Your task to perform on an android device: Open calendar and show me the fourth week of next month Image 0: 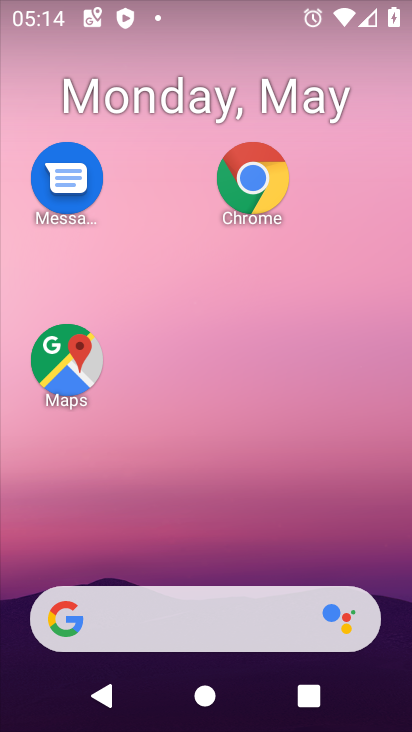
Step 0: drag from (229, 561) to (152, 0)
Your task to perform on an android device: Open calendar and show me the fourth week of next month Image 1: 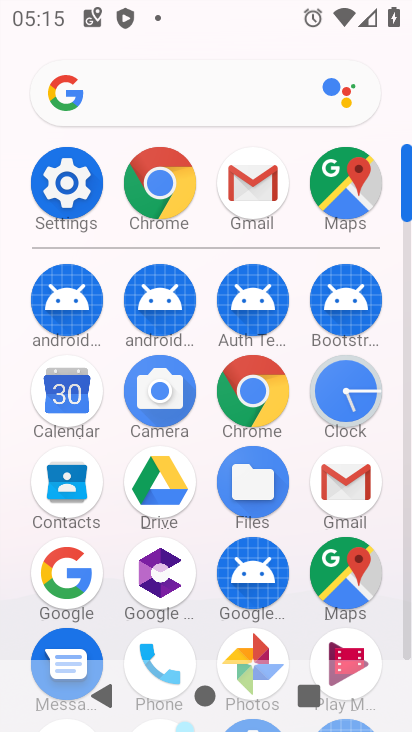
Step 1: click (75, 395)
Your task to perform on an android device: Open calendar and show me the fourth week of next month Image 2: 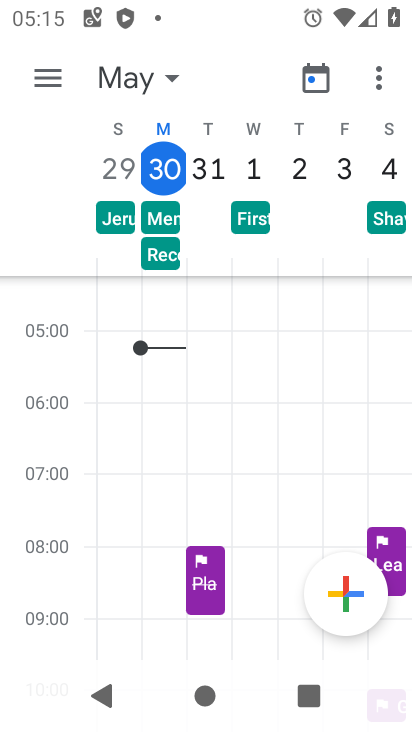
Step 2: click (110, 83)
Your task to perform on an android device: Open calendar and show me the fourth week of next month Image 3: 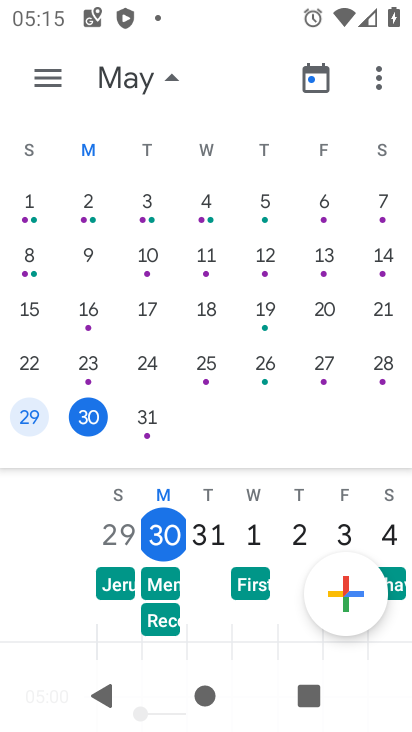
Step 3: drag from (325, 293) to (3, 304)
Your task to perform on an android device: Open calendar and show me the fourth week of next month Image 4: 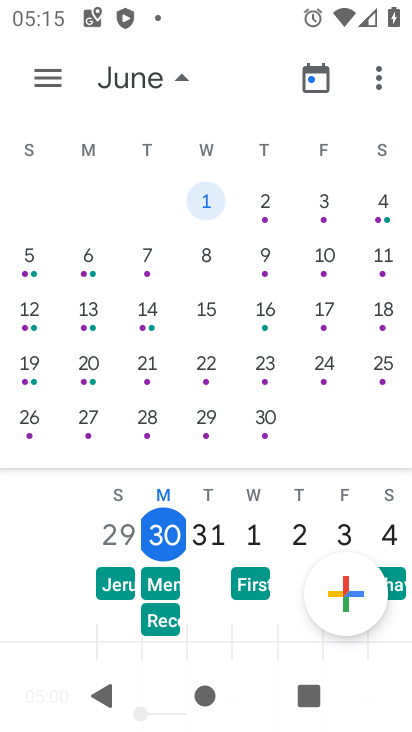
Step 4: click (26, 425)
Your task to perform on an android device: Open calendar and show me the fourth week of next month Image 5: 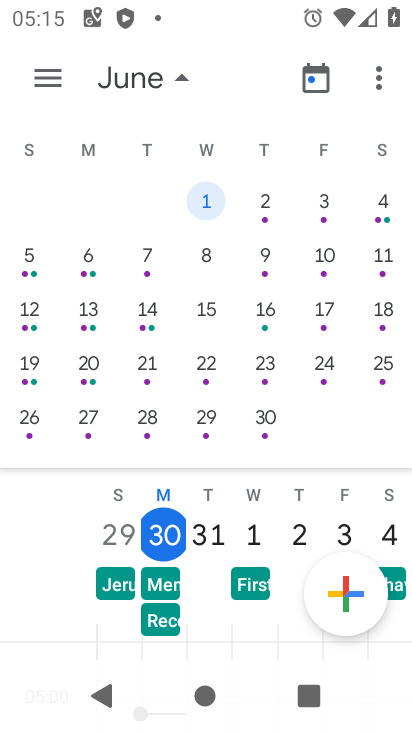
Step 5: click (26, 425)
Your task to perform on an android device: Open calendar and show me the fourth week of next month Image 6: 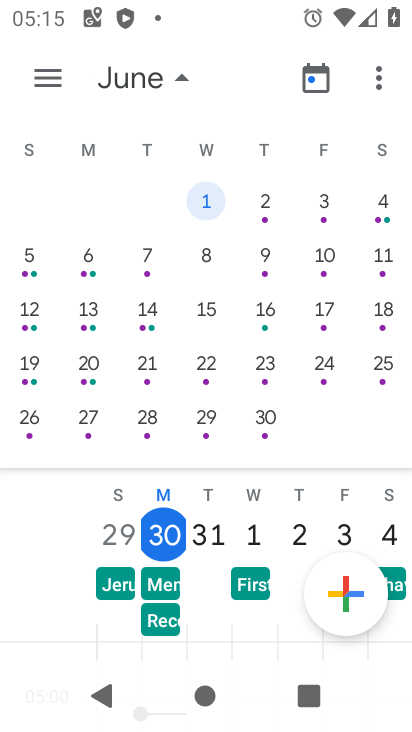
Step 6: click (31, 423)
Your task to perform on an android device: Open calendar and show me the fourth week of next month Image 7: 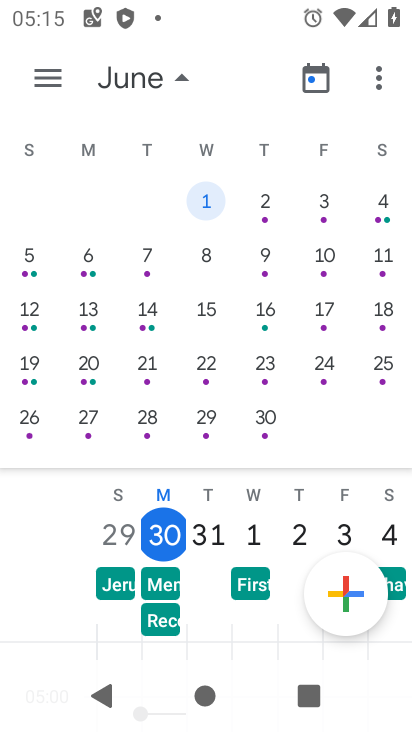
Step 7: click (32, 415)
Your task to perform on an android device: Open calendar and show me the fourth week of next month Image 8: 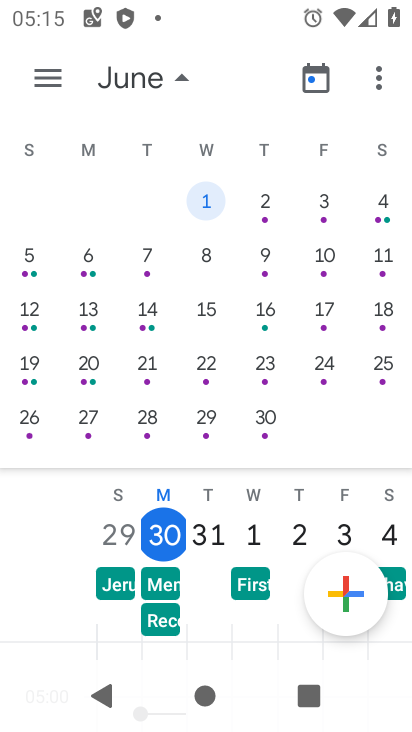
Step 8: click (35, 421)
Your task to perform on an android device: Open calendar and show me the fourth week of next month Image 9: 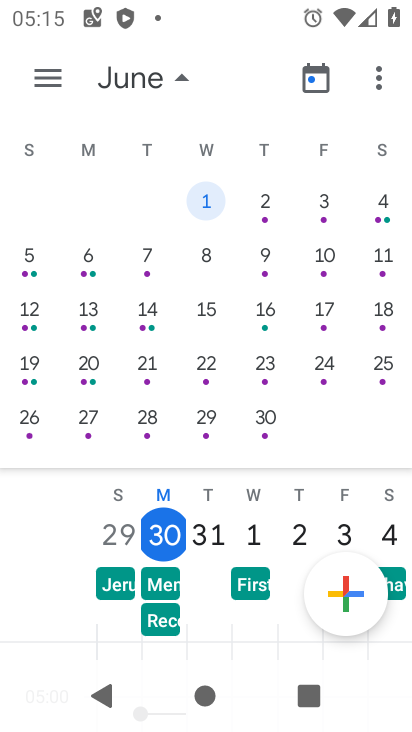
Step 9: click (32, 413)
Your task to perform on an android device: Open calendar and show me the fourth week of next month Image 10: 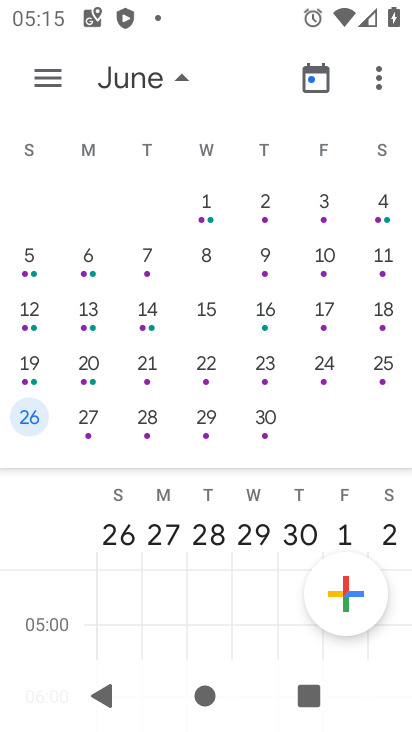
Step 10: task complete